Your task to perform on an android device: find snoozed emails in the gmail app Image 0: 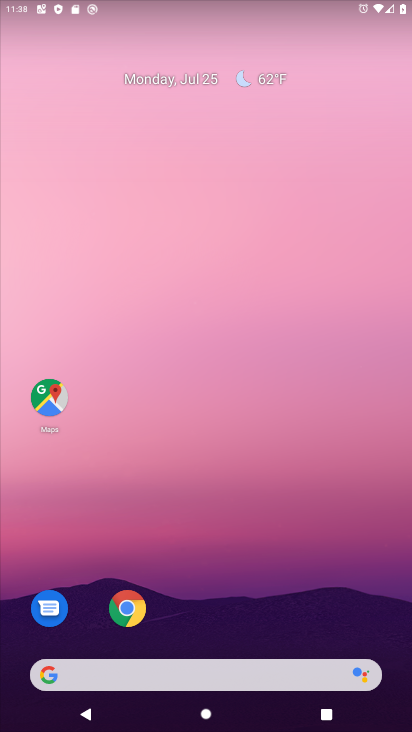
Step 0: click (219, 12)
Your task to perform on an android device: find snoozed emails in the gmail app Image 1: 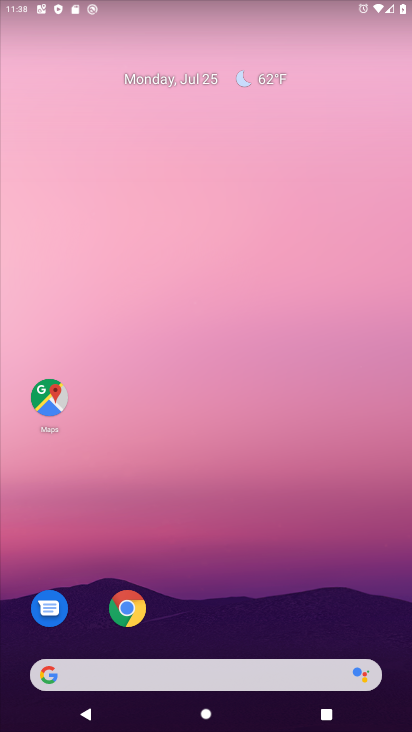
Step 1: drag from (209, 650) to (272, 6)
Your task to perform on an android device: find snoozed emails in the gmail app Image 2: 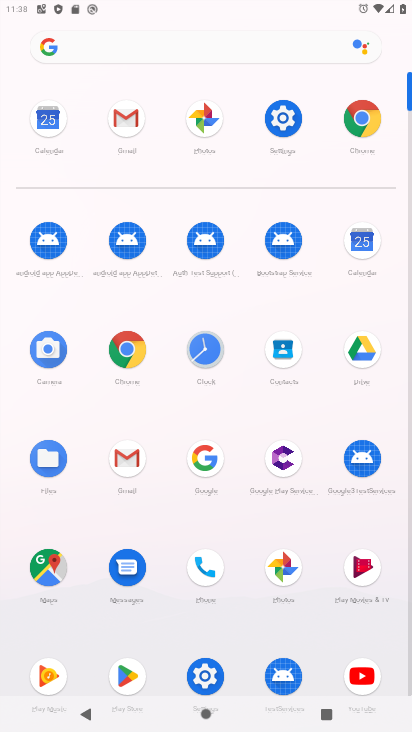
Step 2: click (124, 474)
Your task to perform on an android device: find snoozed emails in the gmail app Image 3: 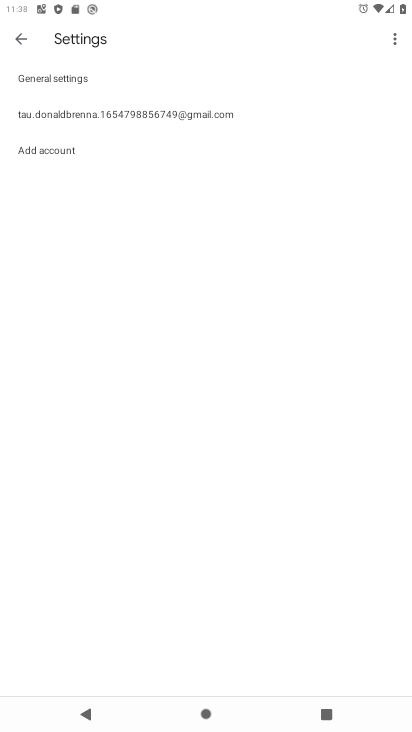
Step 3: click (22, 42)
Your task to perform on an android device: find snoozed emails in the gmail app Image 4: 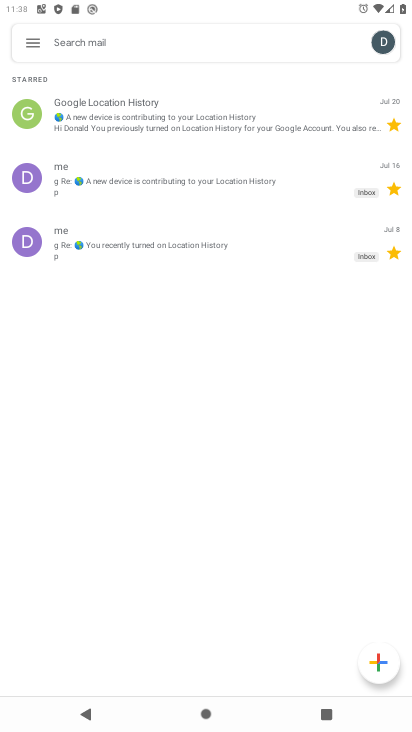
Step 4: click (29, 42)
Your task to perform on an android device: find snoozed emails in the gmail app Image 5: 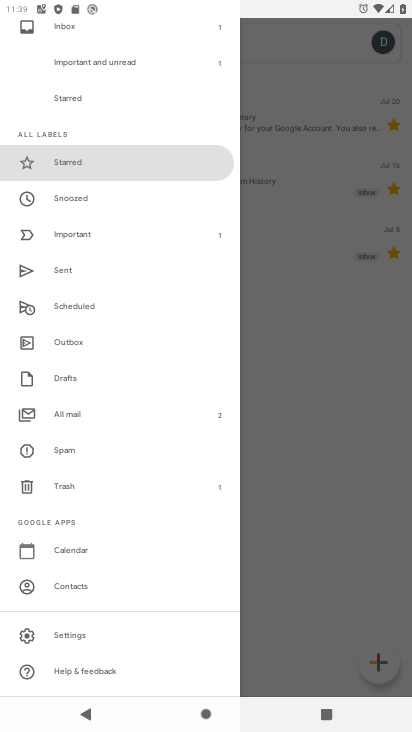
Step 5: click (88, 199)
Your task to perform on an android device: find snoozed emails in the gmail app Image 6: 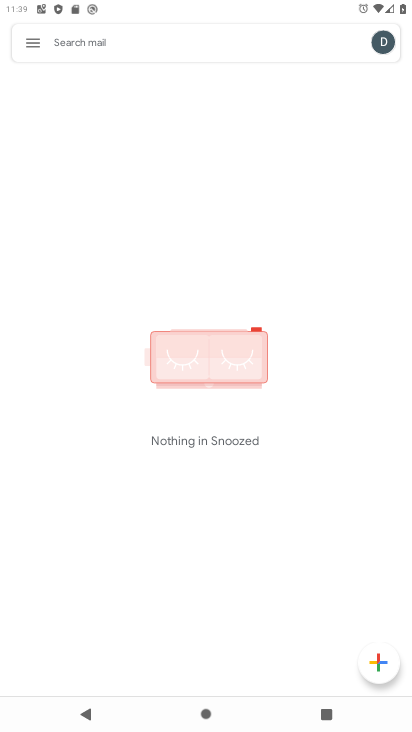
Step 6: task complete